Your task to perform on an android device: Open accessibility settings Image 0: 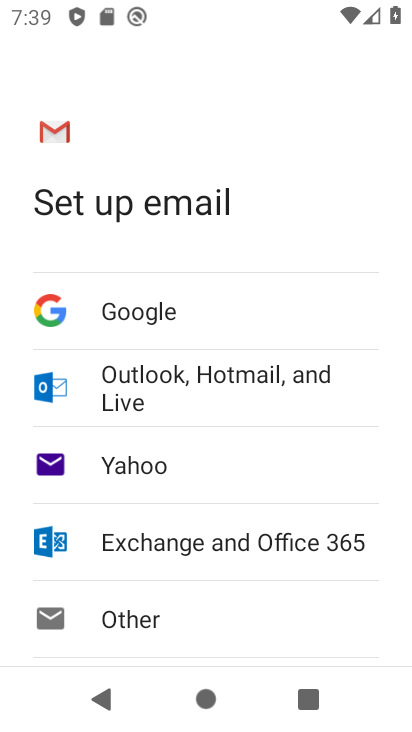
Step 0: press home button
Your task to perform on an android device: Open accessibility settings Image 1: 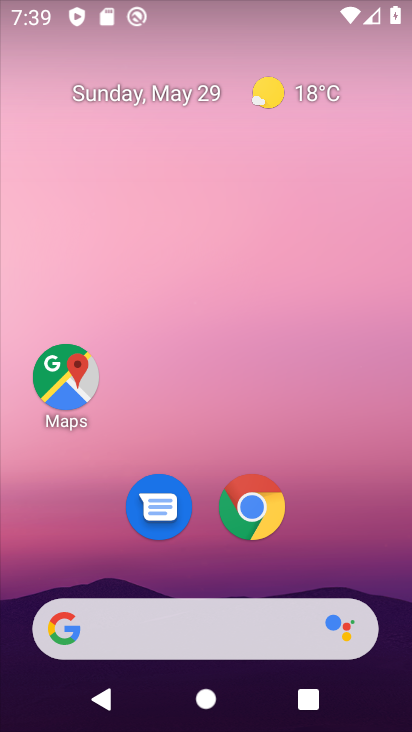
Step 1: drag from (323, 541) to (198, 57)
Your task to perform on an android device: Open accessibility settings Image 2: 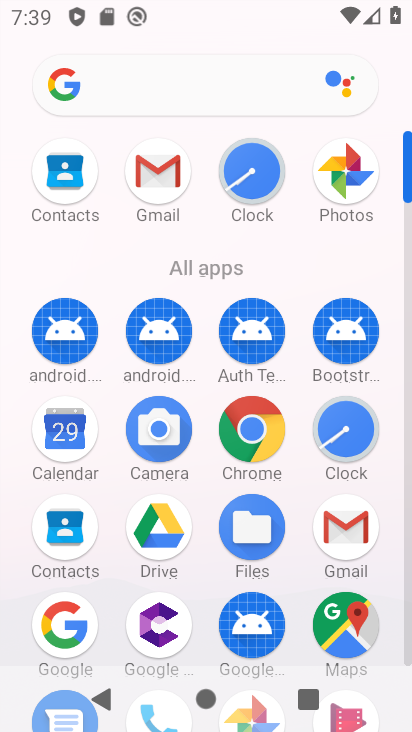
Step 2: drag from (95, 585) to (110, 178)
Your task to perform on an android device: Open accessibility settings Image 3: 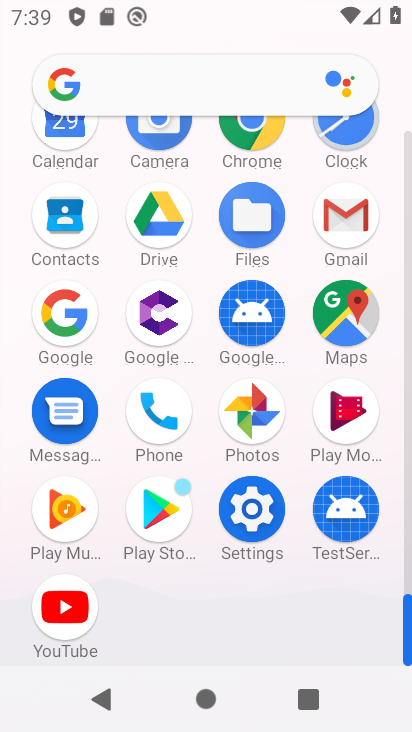
Step 3: click (262, 500)
Your task to perform on an android device: Open accessibility settings Image 4: 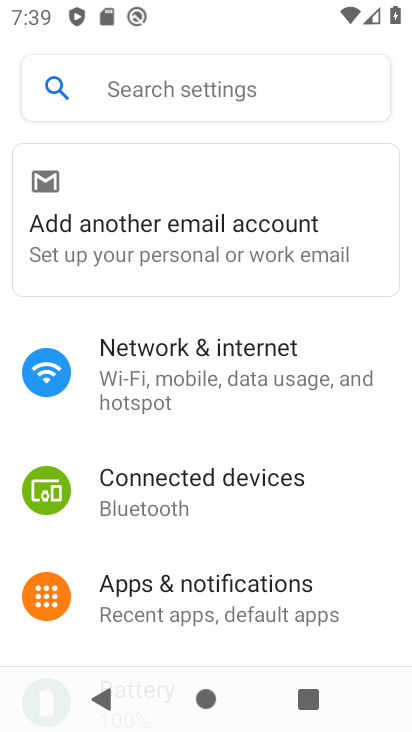
Step 4: drag from (329, 611) to (275, 234)
Your task to perform on an android device: Open accessibility settings Image 5: 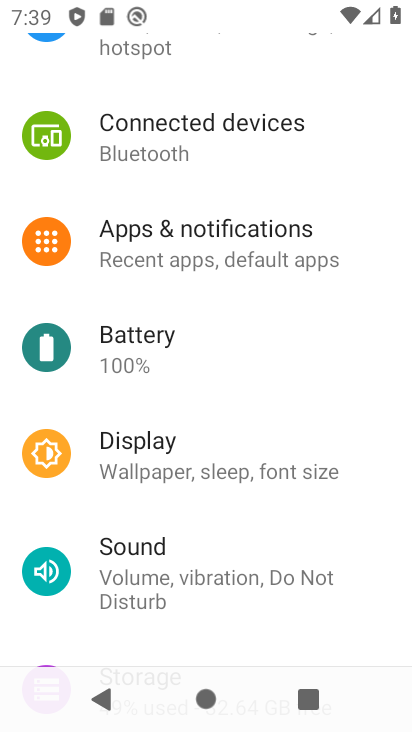
Step 5: drag from (223, 601) to (187, 144)
Your task to perform on an android device: Open accessibility settings Image 6: 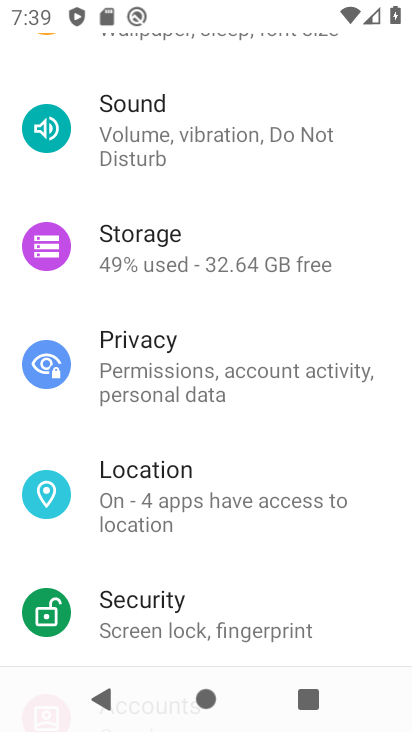
Step 6: drag from (272, 597) to (208, 225)
Your task to perform on an android device: Open accessibility settings Image 7: 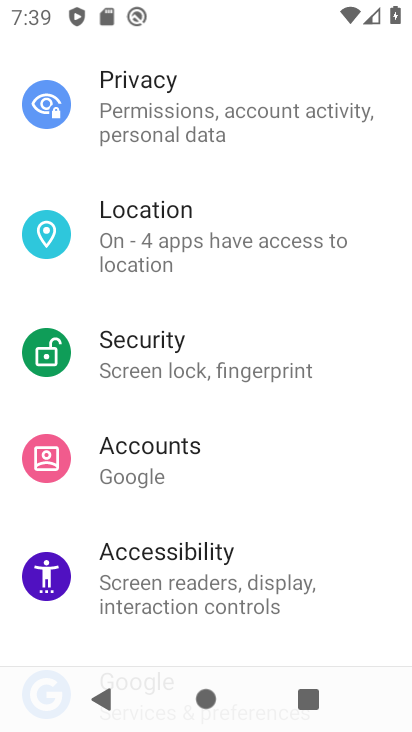
Step 7: click (159, 590)
Your task to perform on an android device: Open accessibility settings Image 8: 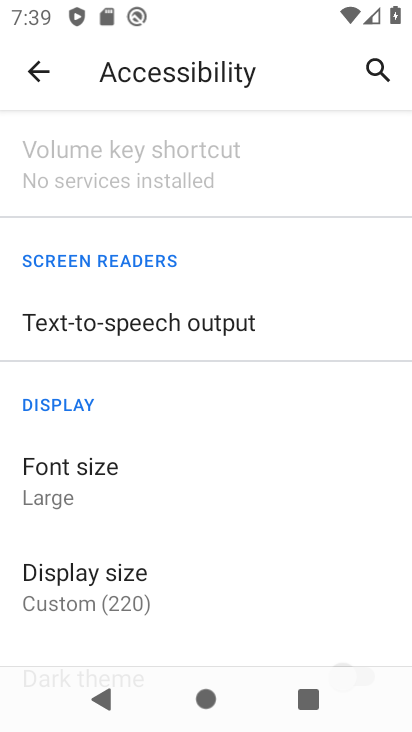
Step 8: task complete